Your task to perform on an android device: stop showing notifications on the lock screen Image 0: 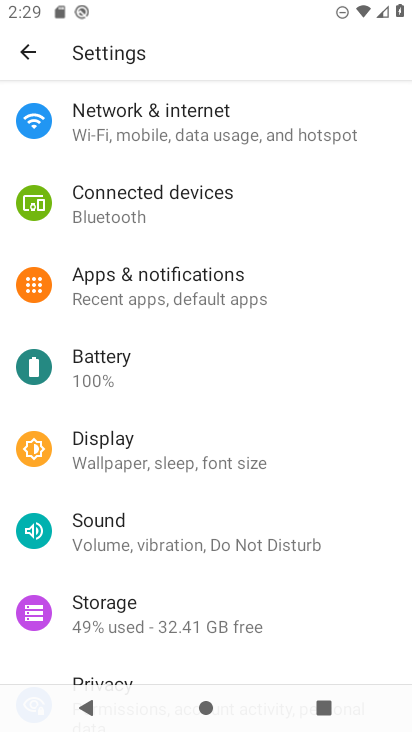
Step 0: click (214, 283)
Your task to perform on an android device: stop showing notifications on the lock screen Image 1: 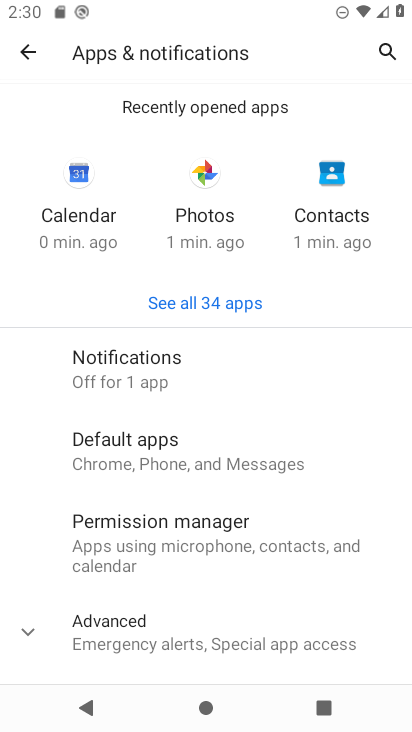
Step 1: click (185, 369)
Your task to perform on an android device: stop showing notifications on the lock screen Image 2: 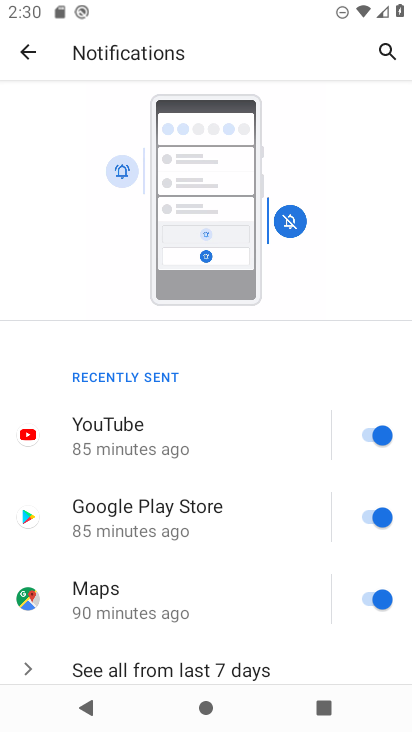
Step 2: task complete